Your task to perform on an android device: turn off notifications in google photos Image 0: 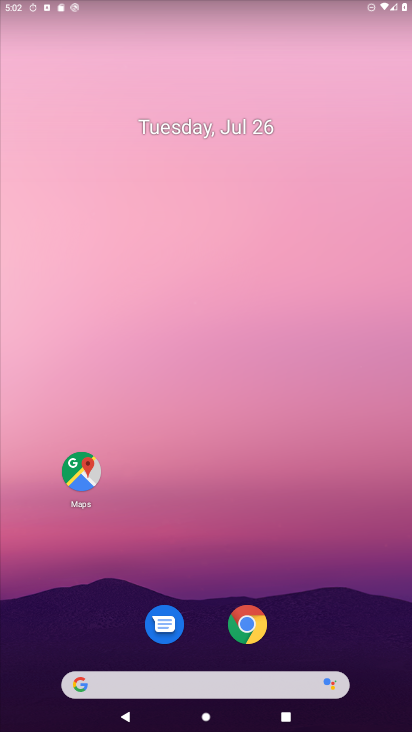
Step 0: drag from (265, 684) to (292, 28)
Your task to perform on an android device: turn off notifications in google photos Image 1: 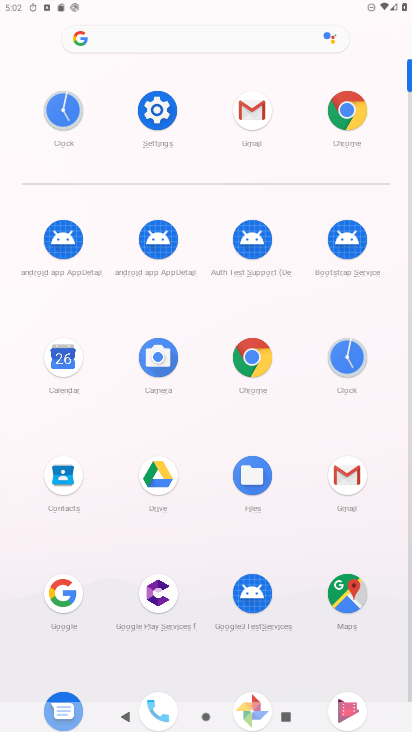
Step 1: drag from (294, 660) to (315, 261)
Your task to perform on an android device: turn off notifications in google photos Image 2: 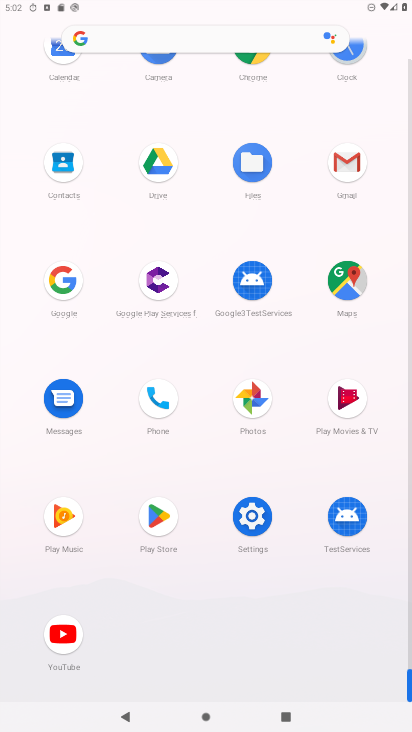
Step 2: click (260, 410)
Your task to perform on an android device: turn off notifications in google photos Image 3: 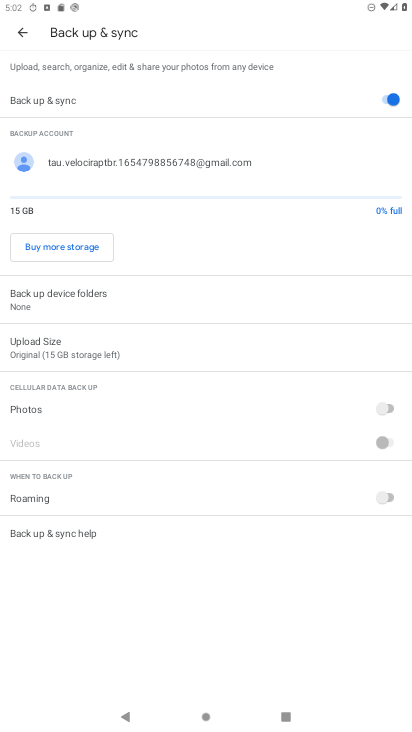
Step 3: press back button
Your task to perform on an android device: turn off notifications in google photos Image 4: 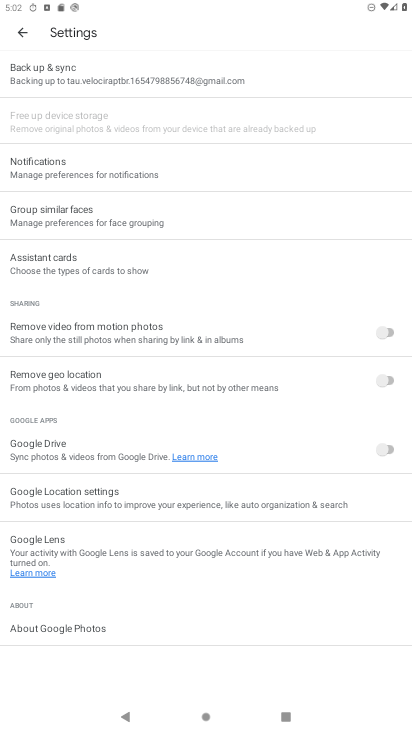
Step 4: click (95, 173)
Your task to perform on an android device: turn off notifications in google photos Image 5: 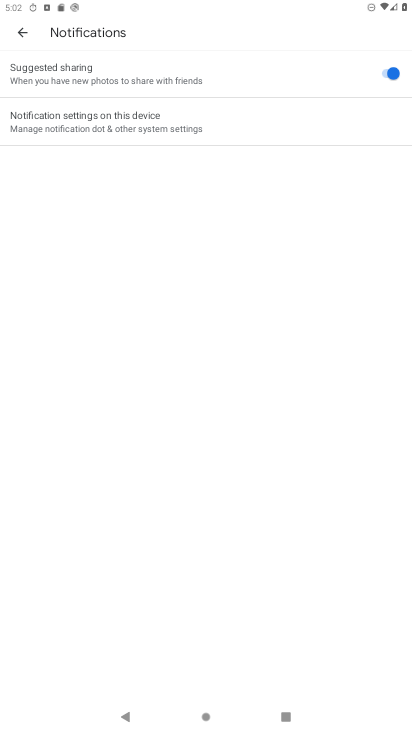
Step 5: click (170, 125)
Your task to perform on an android device: turn off notifications in google photos Image 6: 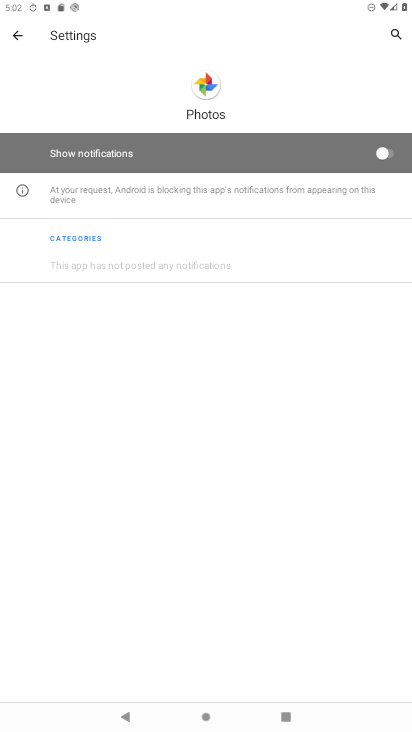
Step 6: task complete